Your task to perform on an android device: turn on javascript in the chrome app Image 0: 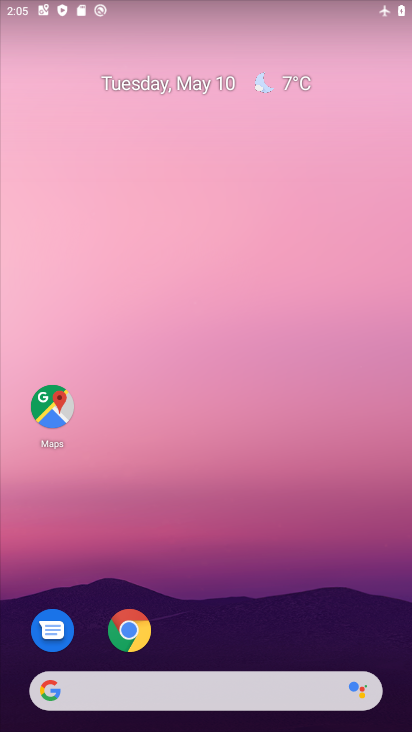
Step 0: drag from (215, 514) to (192, 26)
Your task to perform on an android device: turn on javascript in the chrome app Image 1: 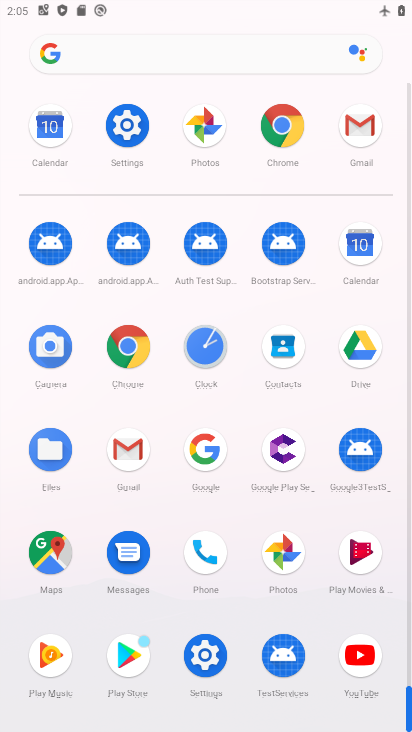
Step 1: drag from (7, 516) to (20, 165)
Your task to perform on an android device: turn on javascript in the chrome app Image 2: 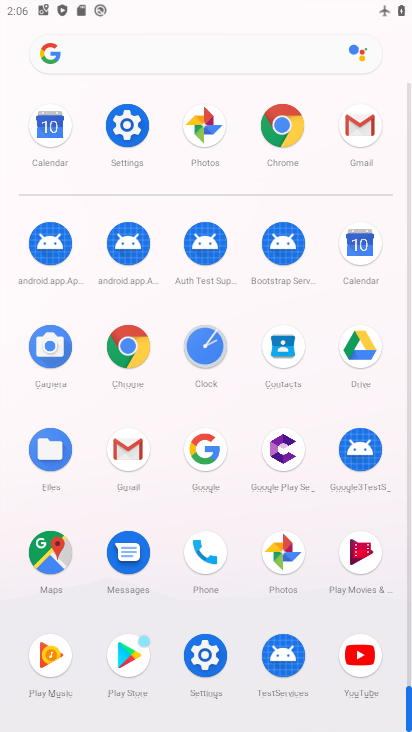
Step 2: drag from (22, 478) to (28, 192)
Your task to perform on an android device: turn on javascript in the chrome app Image 3: 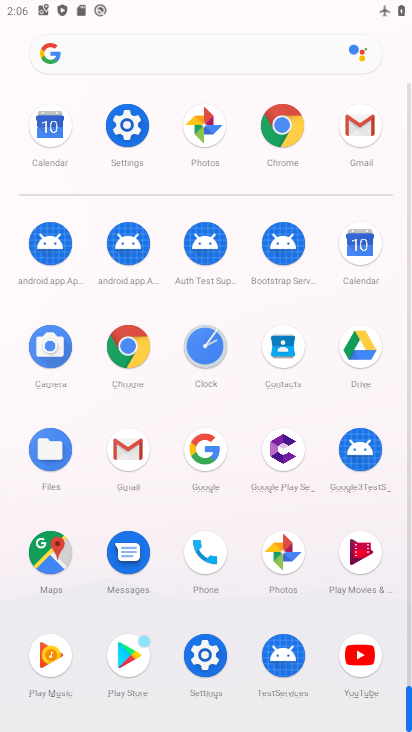
Step 3: click (126, 342)
Your task to perform on an android device: turn on javascript in the chrome app Image 4: 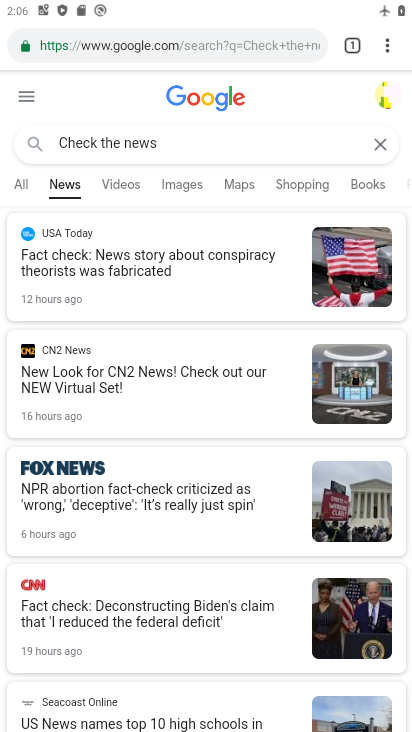
Step 4: drag from (386, 44) to (247, 501)
Your task to perform on an android device: turn on javascript in the chrome app Image 5: 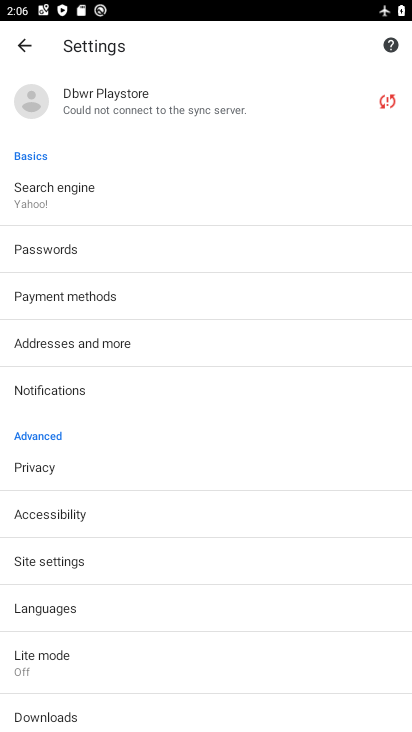
Step 5: drag from (197, 550) to (242, 252)
Your task to perform on an android device: turn on javascript in the chrome app Image 6: 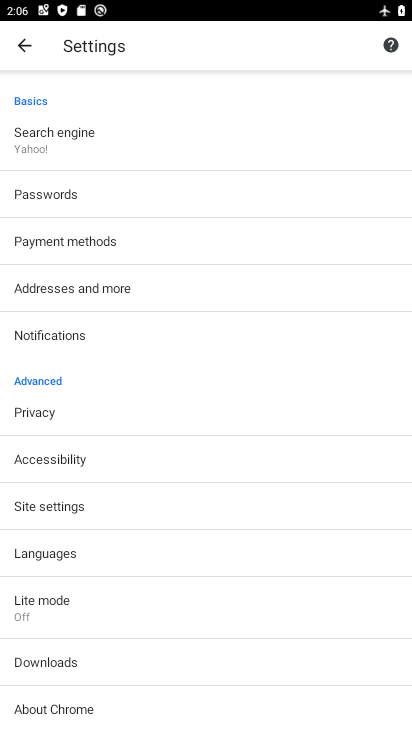
Step 6: drag from (173, 594) to (175, 238)
Your task to perform on an android device: turn on javascript in the chrome app Image 7: 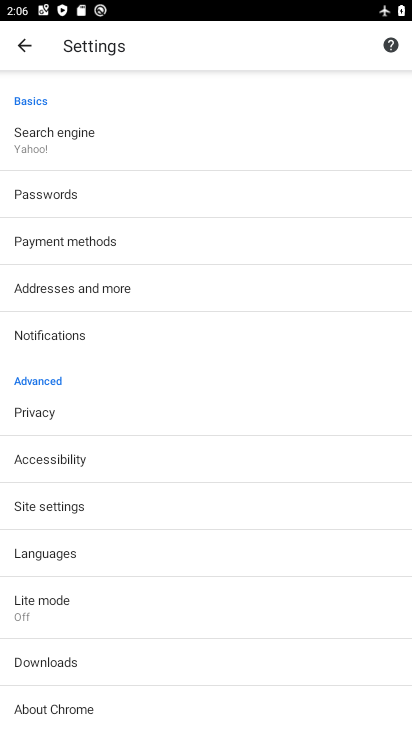
Step 7: drag from (176, 601) to (195, 206)
Your task to perform on an android device: turn on javascript in the chrome app Image 8: 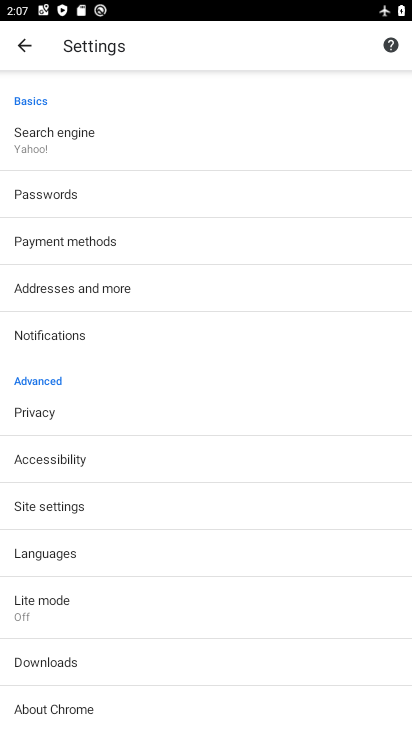
Step 8: drag from (249, 597) to (269, 217)
Your task to perform on an android device: turn on javascript in the chrome app Image 9: 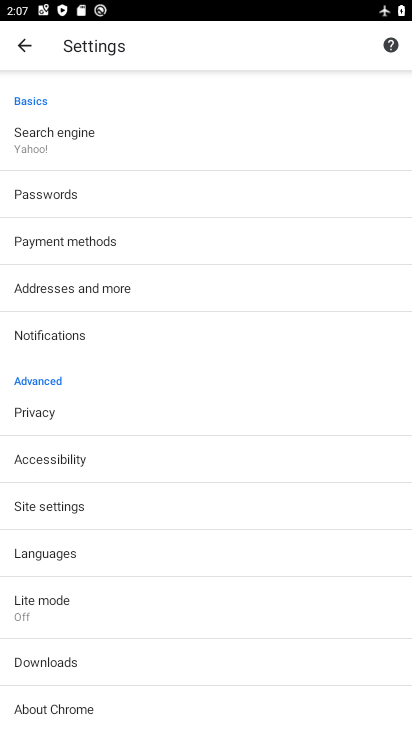
Step 9: click (100, 503)
Your task to perform on an android device: turn on javascript in the chrome app Image 10: 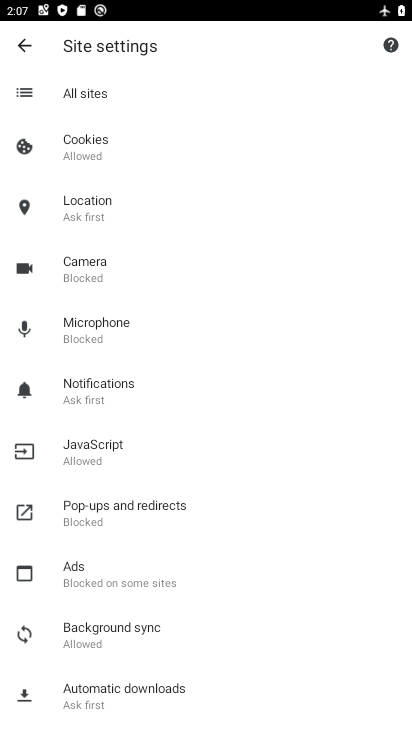
Step 10: click (114, 449)
Your task to perform on an android device: turn on javascript in the chrome app Image 11: 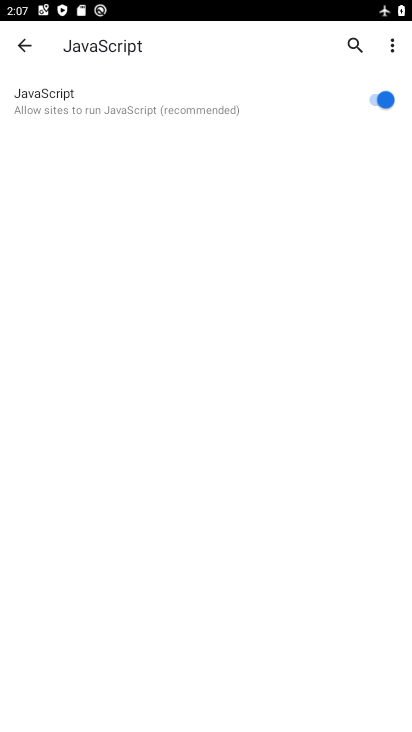
Step 11: task complete